Your task to perform on an android device: Show the shopping cart on costco.com. Search for "razer naga" on costco.com, select the first entry, and add it to the cart. Image 0: 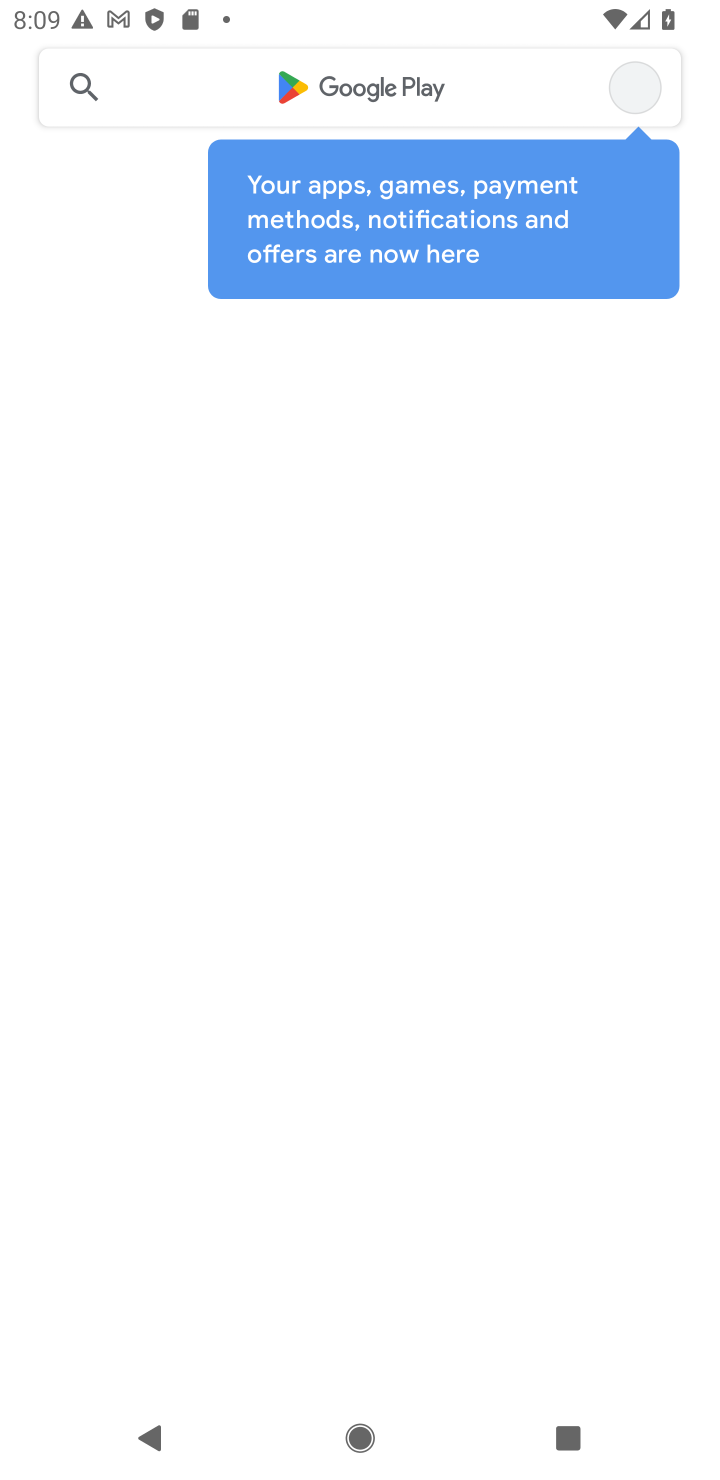
Step 0: press home button
Your task to perform on an android device: Show the shopping cart on costco.com. Search for "razer naga" on costco.com, select the first entry, and add it to the cart. Image 1: 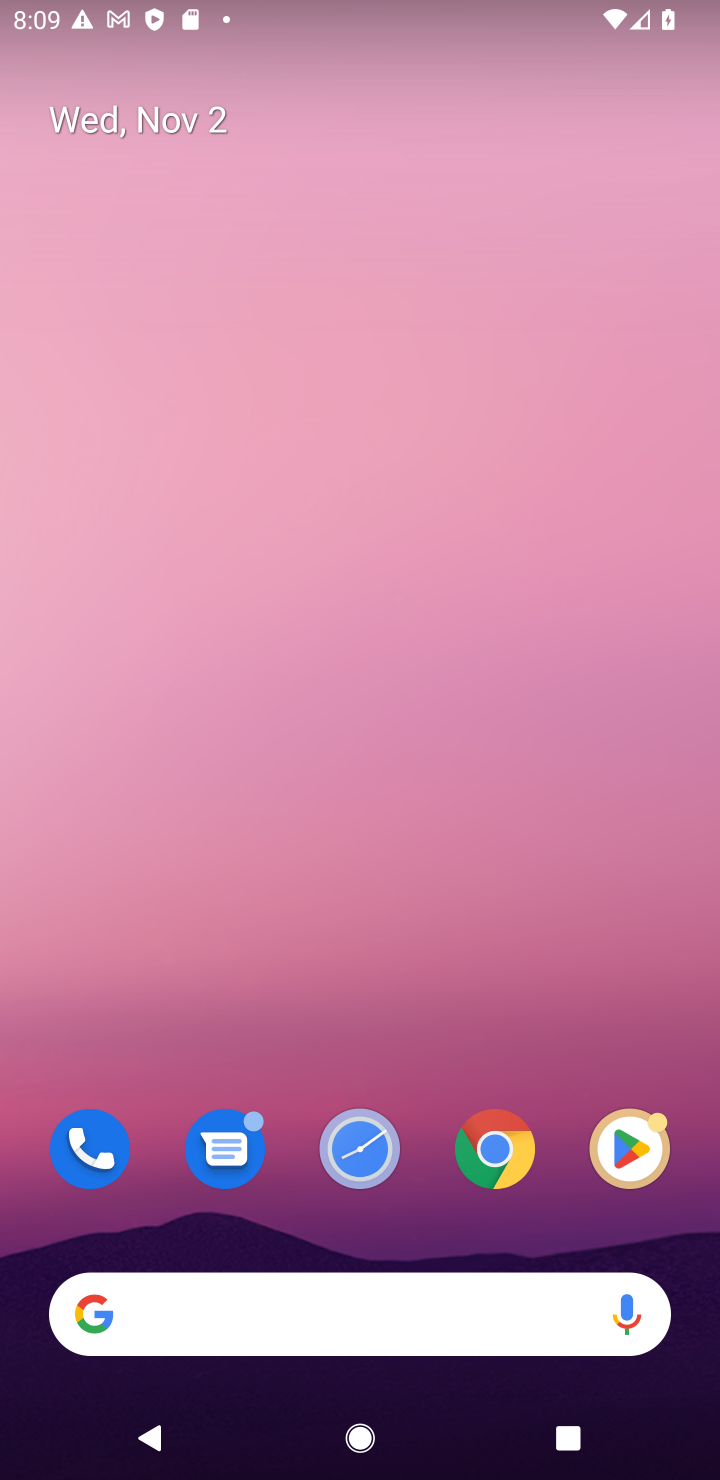
Step 1: click (490, 1153)
Your task to perform on an android device: Show the shopping cart on costco.com. Search for "razer naga" on costco.com, select the first entry, and add it to the cart. Image 2: 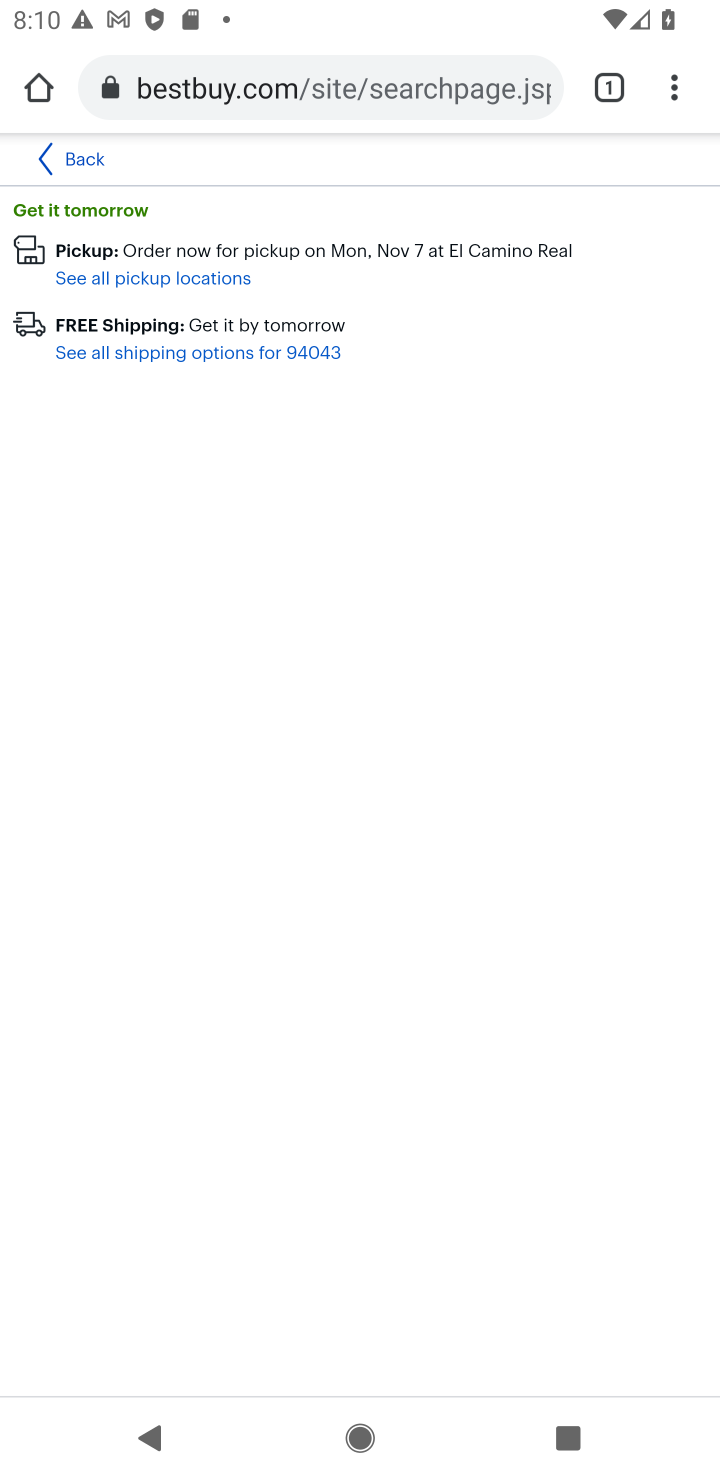
Step 2: drag from (668, 93) to (420, 156)
Your task to perform on an android device: Show the shopping cart on costco.com. Search for "razer naga" on costco.com, select the first entry, and add it to the cart. Image 3: 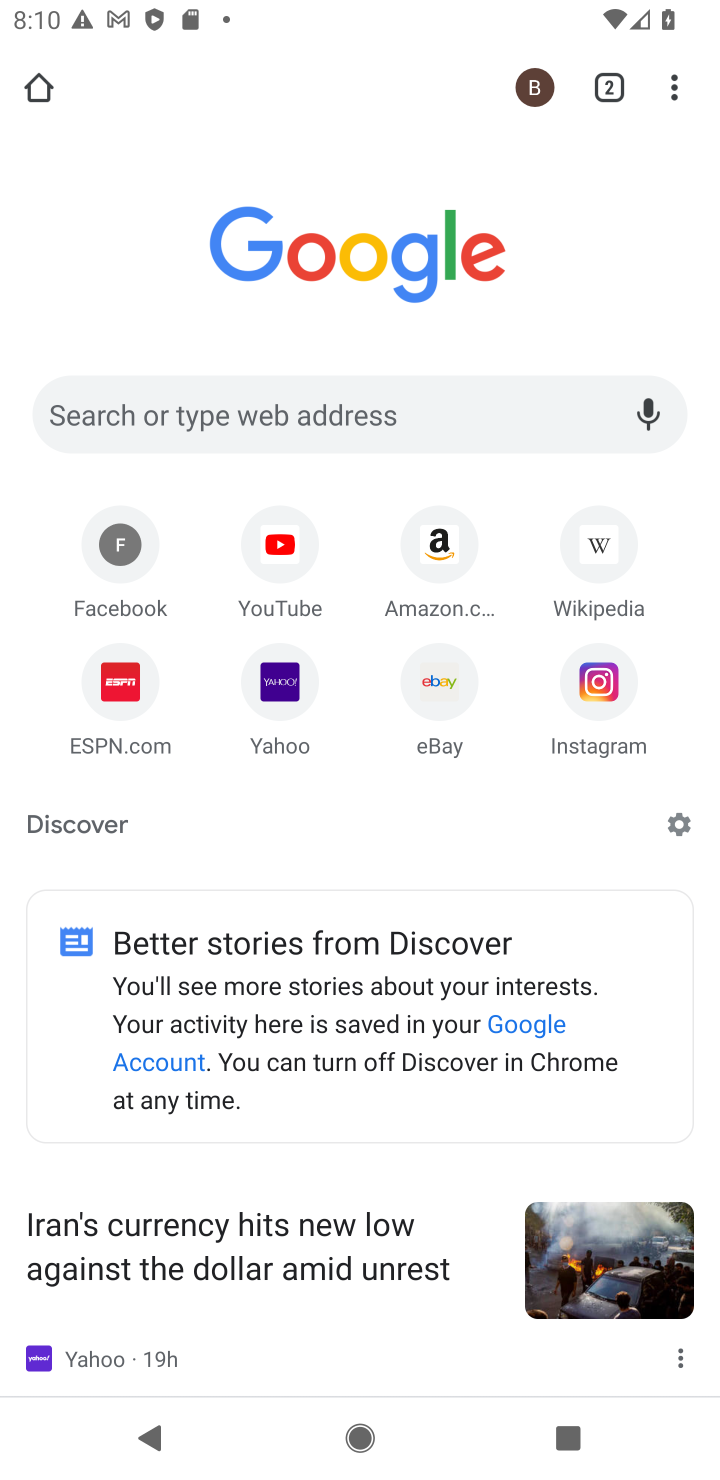
Step 3: click (235, 392)
Your task to perform on an android device: Show the shopping cart on costco.com. Search for "razer naga" on costco.com, select the first entry, and add it to the cart. Image 4: 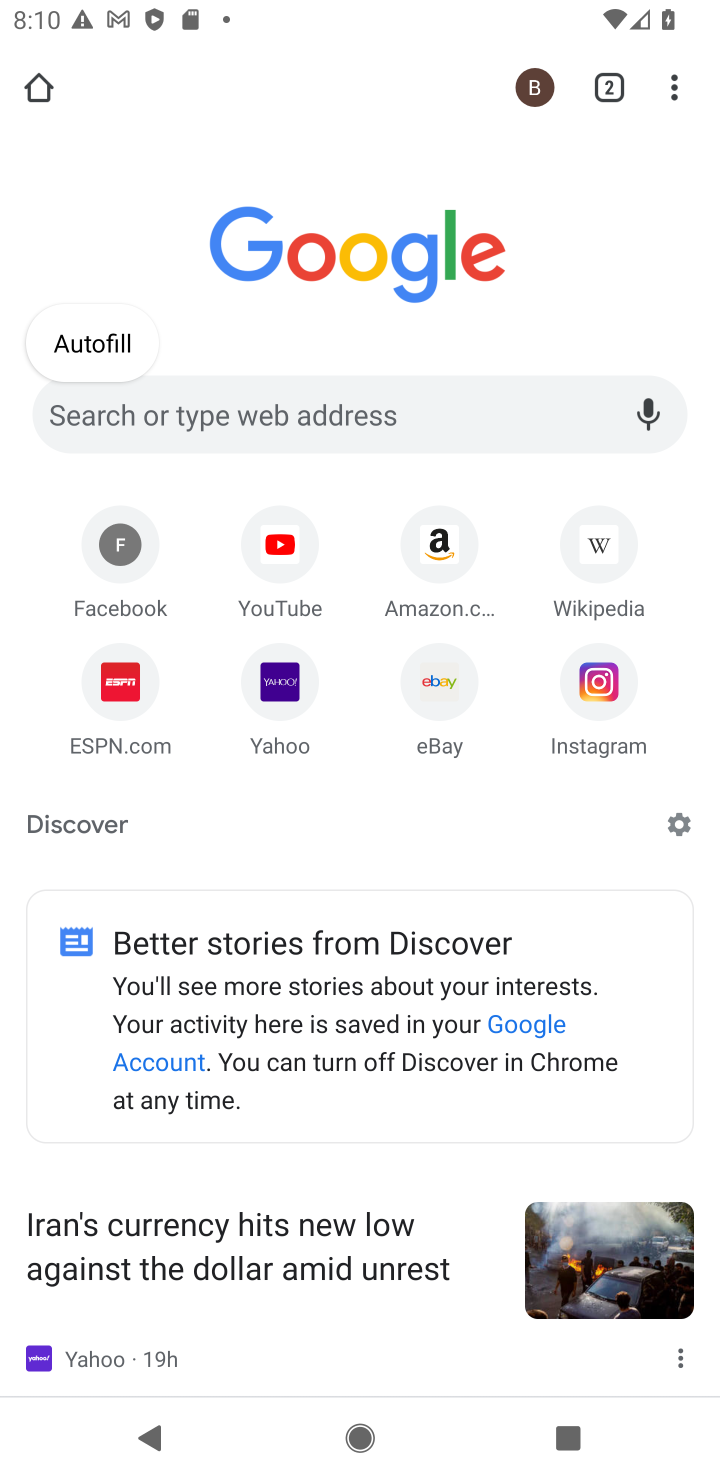
Step 4: click (403, 400)
Your task to perform on an android device: Show the shopping cart on costco.com. Search for "razer naga" on costco.com, select the first entry, and add it to the cart. Image 5: 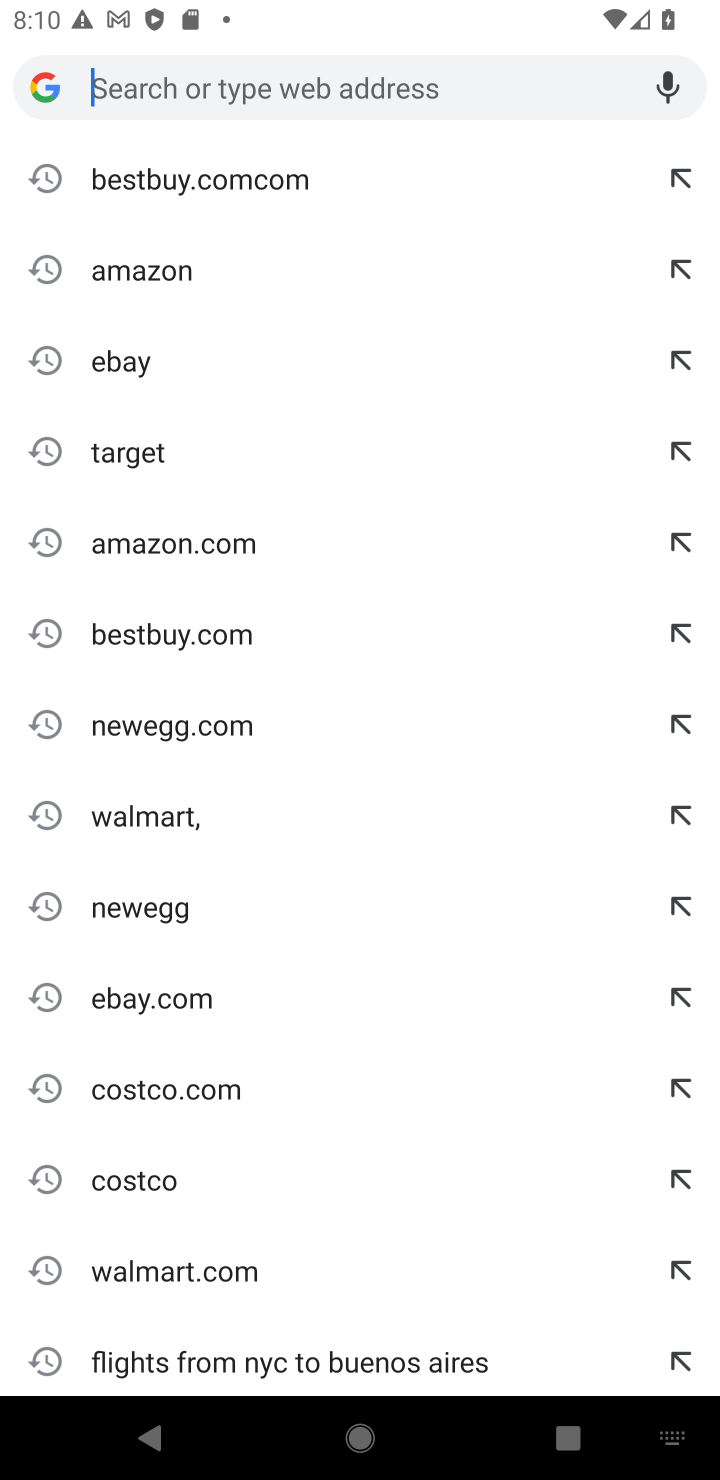
Step 5: type "costco.com"
Your task to perform on an android device: Show the shopping cart on costco.com. Search for "razer naga" on costco.com, select the first entry, and add it to the cart. Image 6: 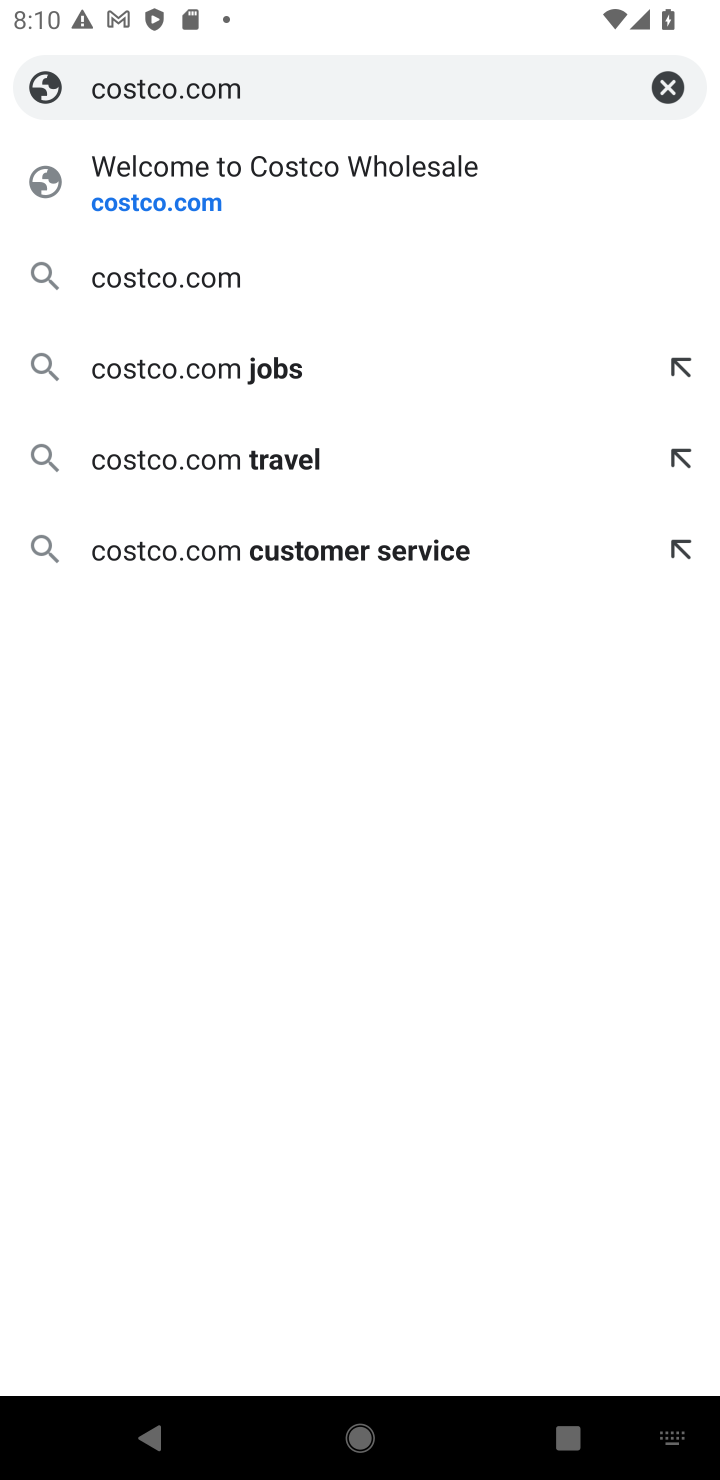
Step 6: click (213, 268)
Your task to perform on an android device: Show the shopping cart on costco.com. Search for "razer naga" on costco.com, select the first entry, and add it to the cart. Image 7: 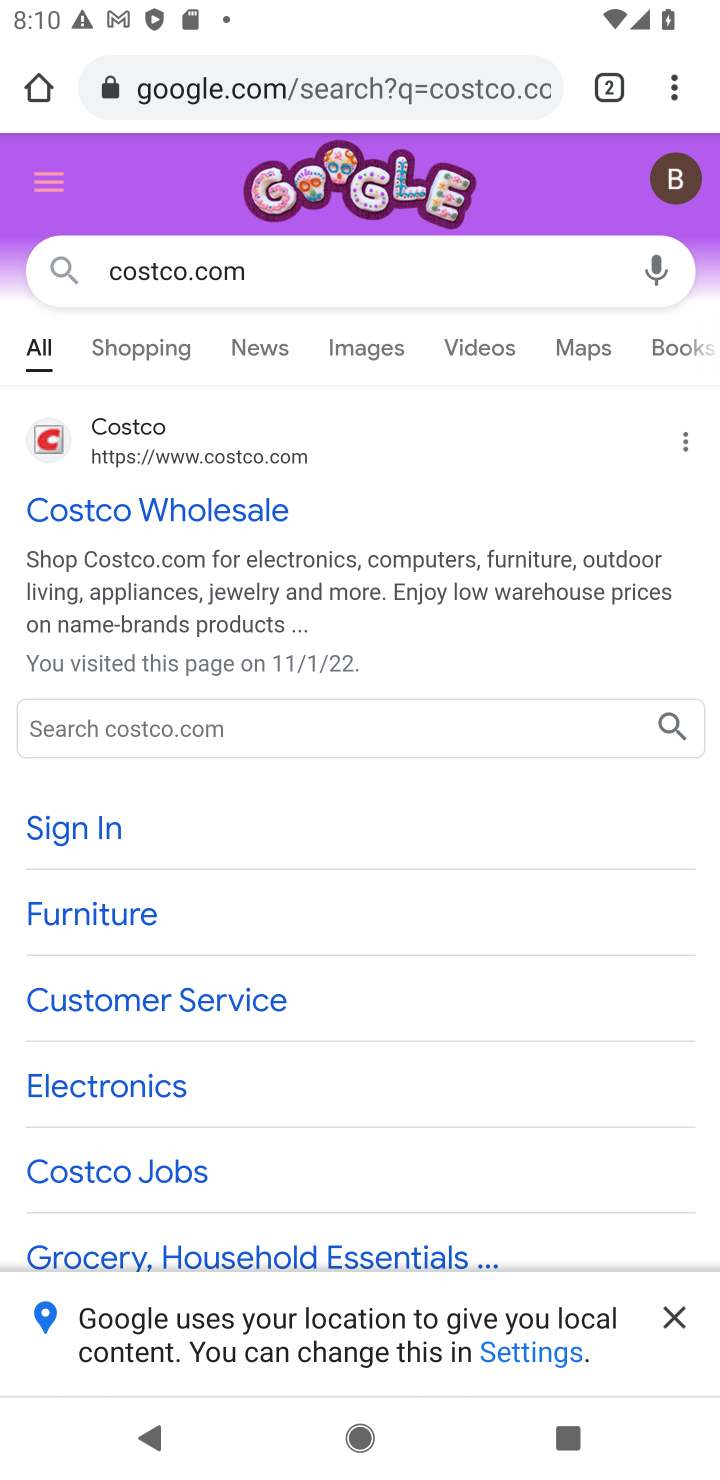
Step 7: click (200, 500)
Your task to perform on an android device: Show the shopping cart on costco.com. Search for "razer naga" on costco.com, select the first entry, and add it to the cart. Image 8: 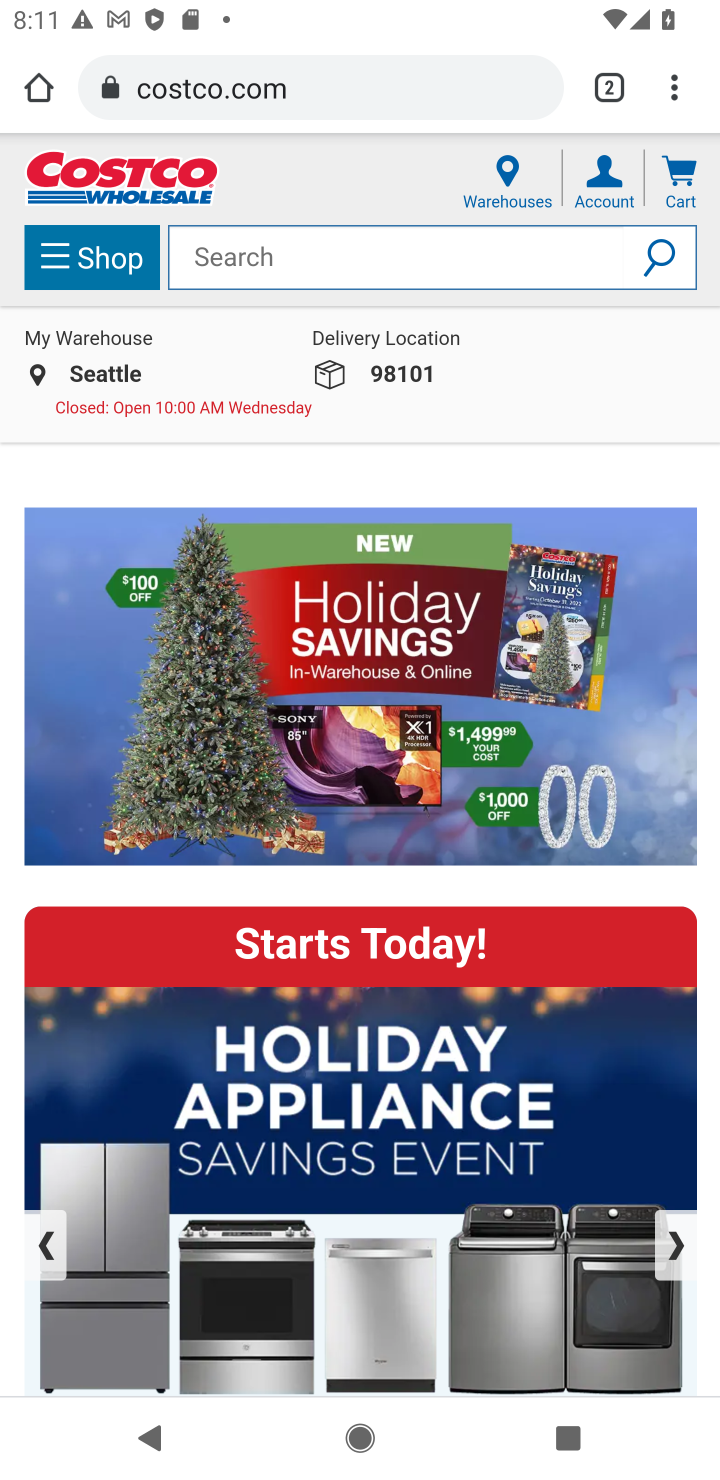
Step 8: click (271, 259)
Your task to perform on an android device: Show the shopping cart on costco.com. Search for "razer naga" on costco.com, select the first entry, and add it to the cart. Image 9: 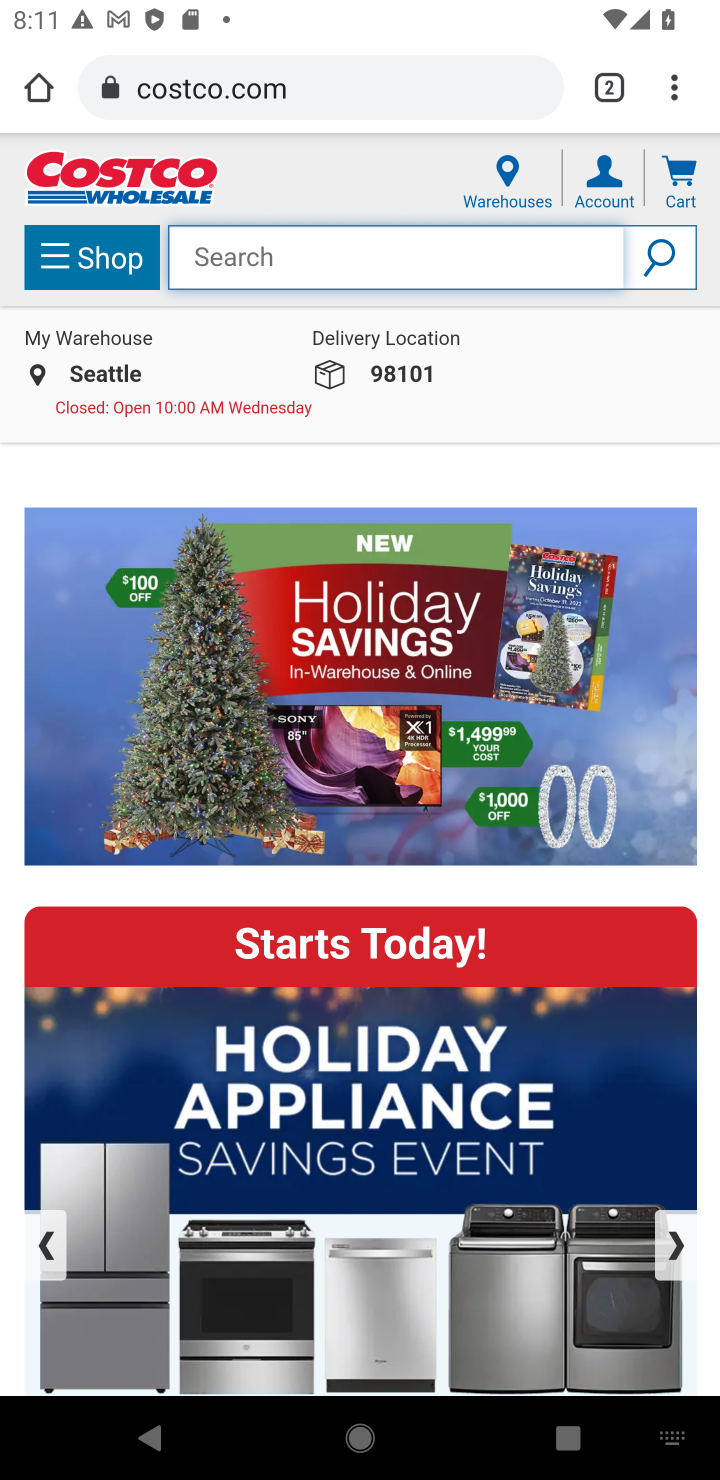
Step 9: type "razer naga"
Your task to perform on an android device: Show the shopping cart on costco.com. Search for "razer naga" on costco.com, select the first entry, and add it to the cart. Image 10: 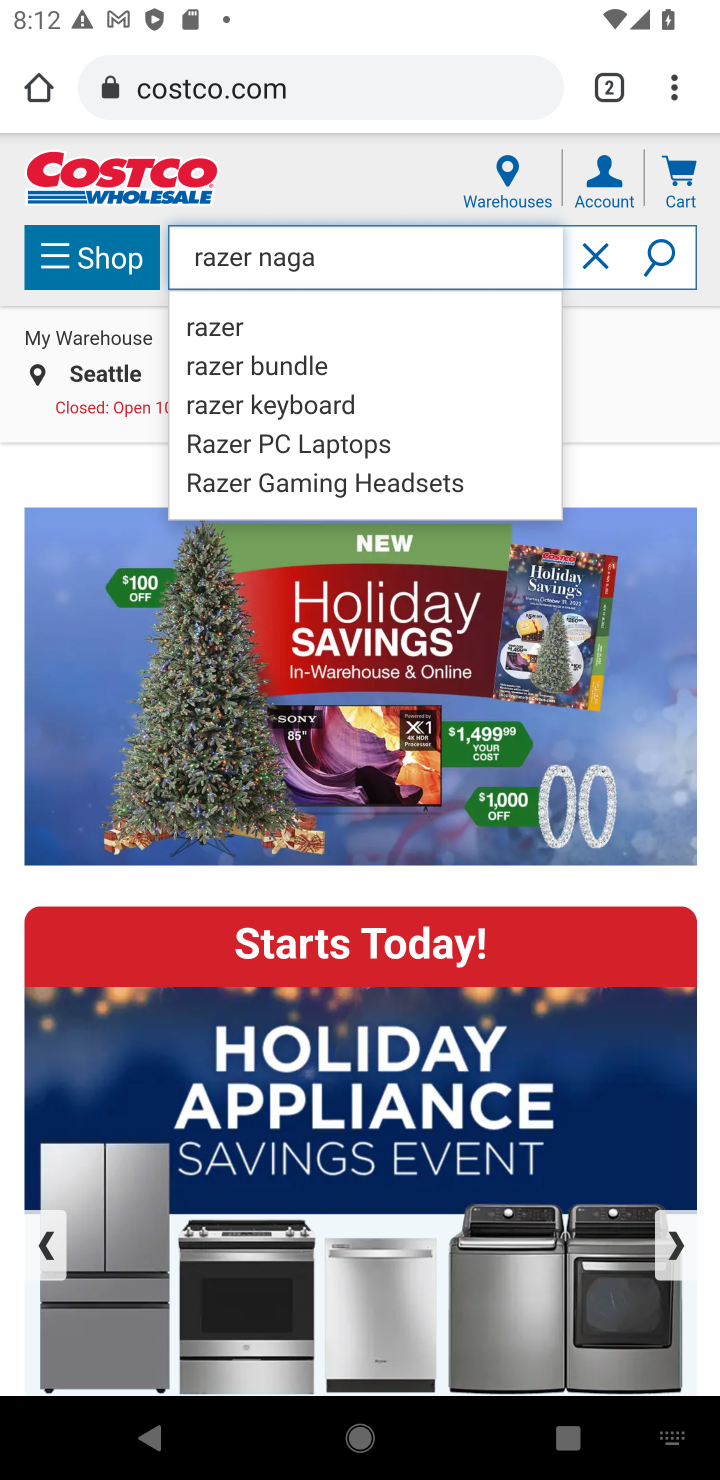
Step 10: click (229, 323)
Your task to perform on an android device: Show the shopping cart on costco.com. Search for "razer naga" on costco.com, select the first entry, and add it to the cart. Image 11: 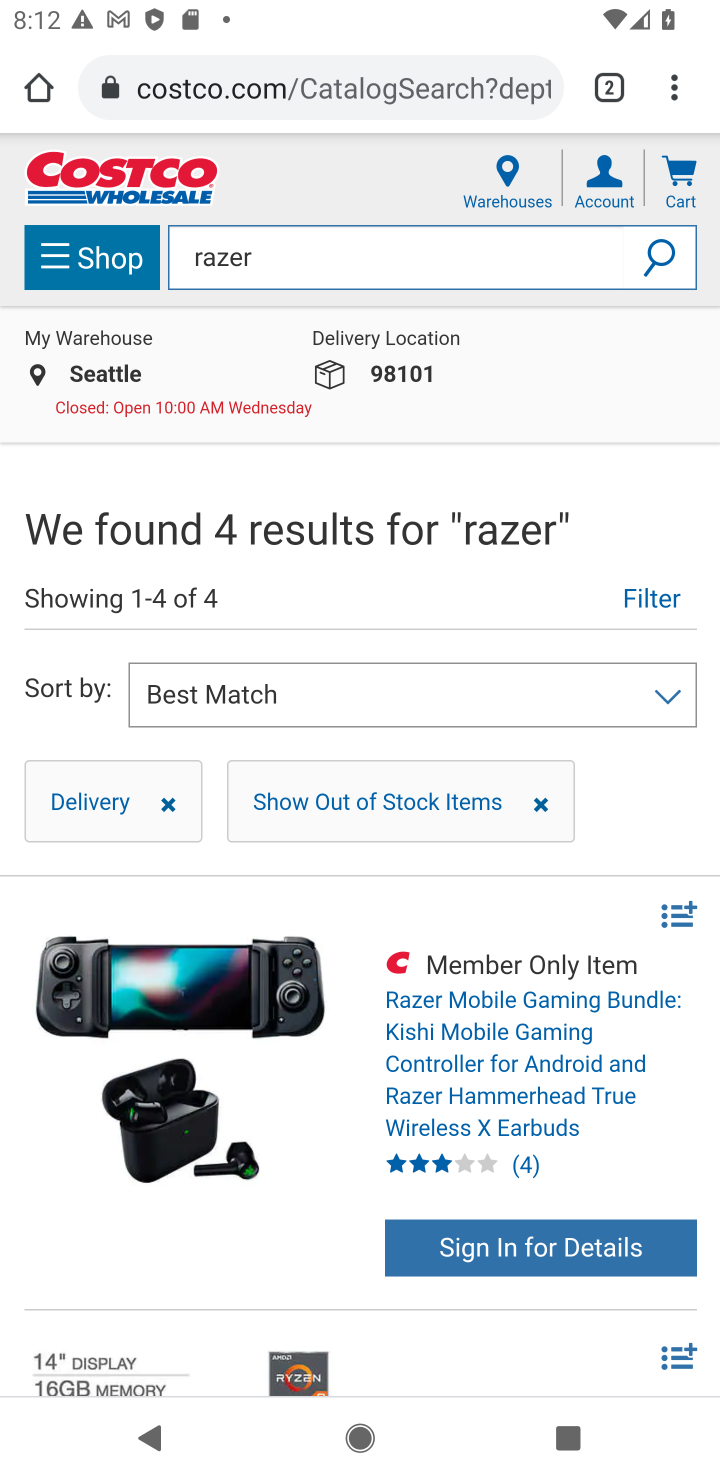
Step 11: task complete